Your task to perform on an android device: toggle airplane mode Image 0: 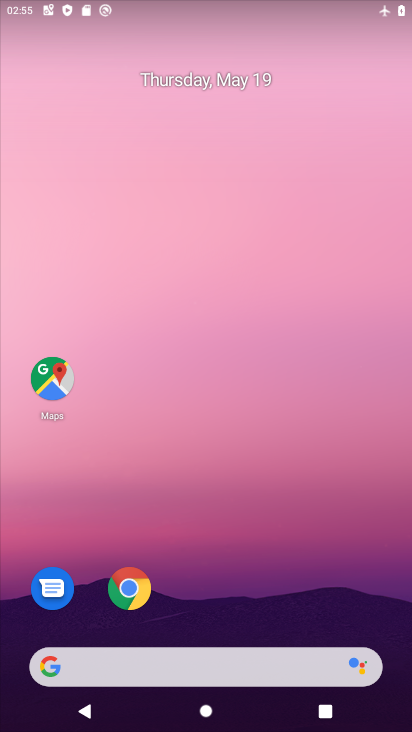
Step 0: drag from (212, 550) to (261, 108)
Your task to perform on an android device: toggle airplane mode Image 1: 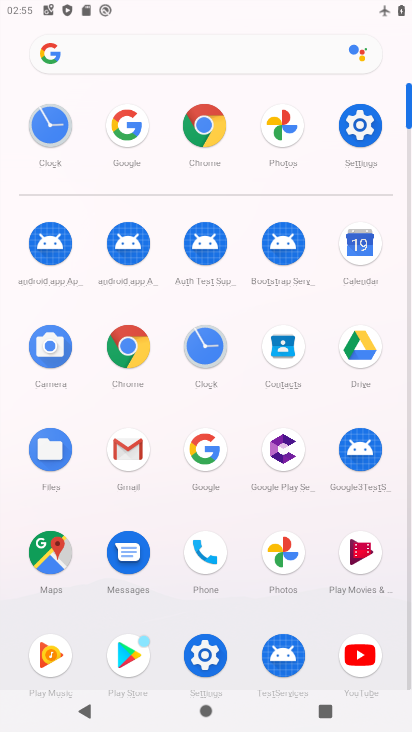
Step 1: click (359, 125)
Your task to perform on an android device: toggle airplane mode Image 2: 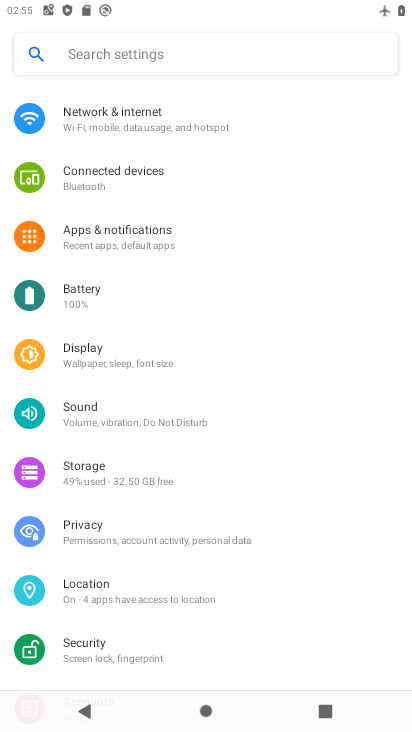
Step 2: click (139, 125)
Your task to perform on an android device: toggle airplane mode Image 3: 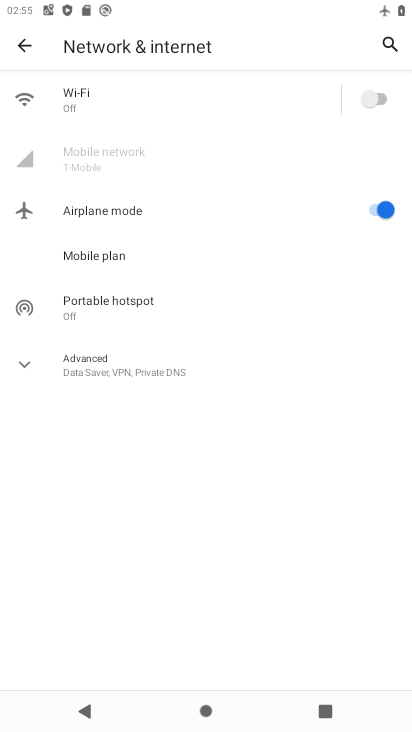
Step 3: click (380, 212)
Your task to perform on an android device: toggle airplane mode Image 4: 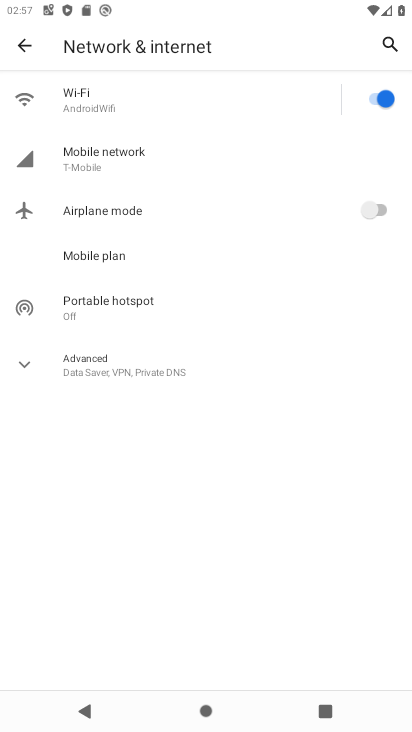
Step 4: task complete